Your task to perform on an android device: Open Yahoo.com Image 0: 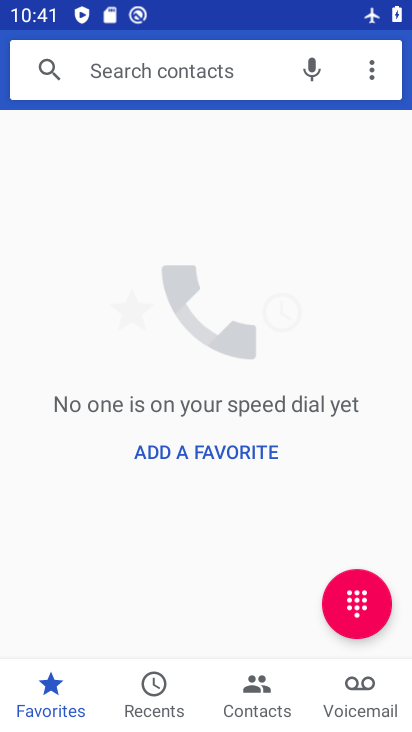
Step 0: press home button
Your task to perform on an android device: Open Yahoo.com Image 1: 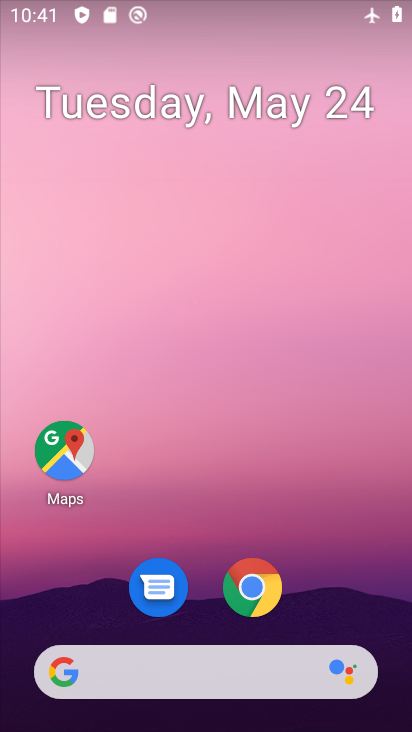
Step 1: click (257, 581)
Your task to perform on an android device: Open Yahoo.com Image 2: 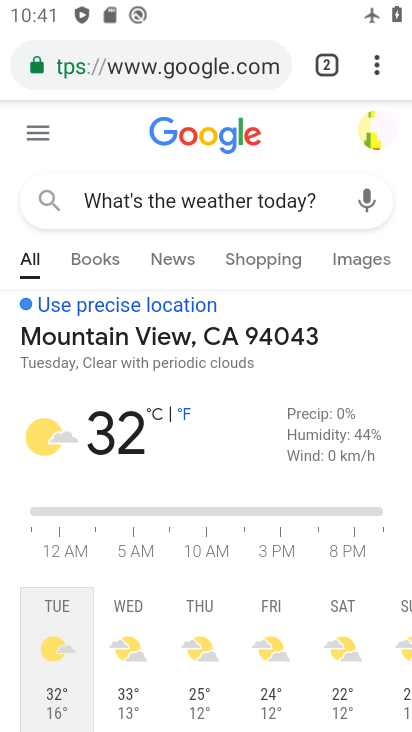
Step 2: drag from (268, 0) to (388, 731)
Your task to perform on an android device: Open Yahoo.com Image 3: 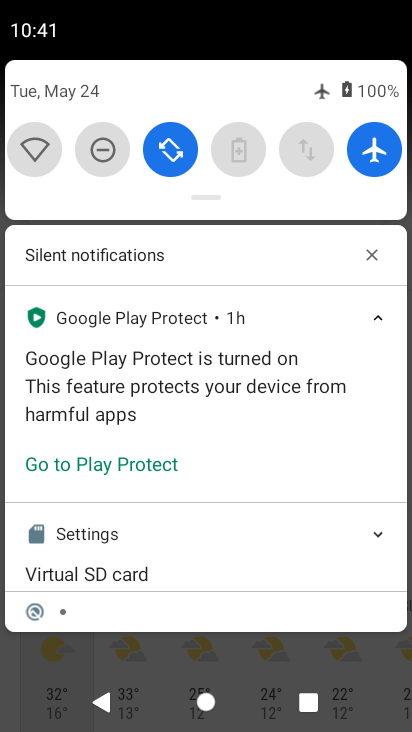
Step 3: click (381, 165)
Your task to perform on an android device: Open Yahoo.com Image 4: 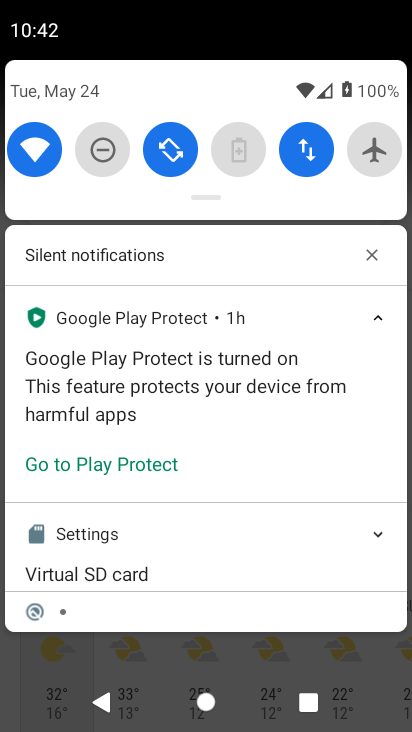
Step 4: drag from (74, 643) to (68, 93)
Your task to perform on an android device: Open Yahoo.com Image 5: 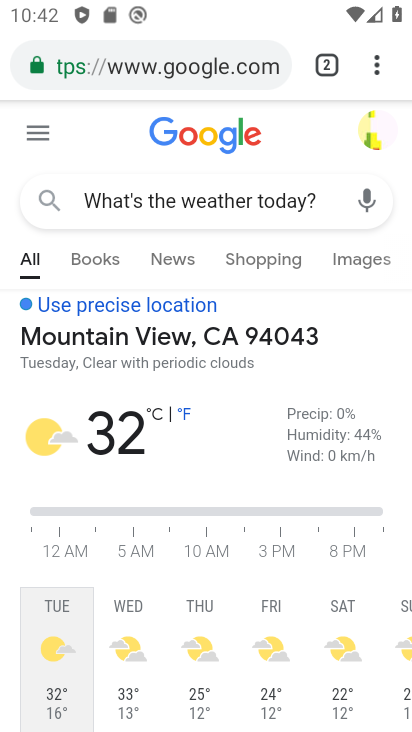
Step 5: click (148, 74)
Your task to perform on an android device: Open Yahoo.com Image 6: 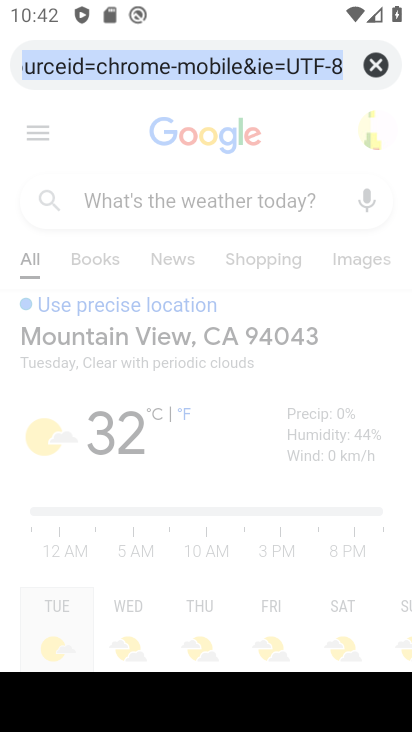
Step 6: click (371, 69)
Your task to perform on an android device: Open Yahoo.com Image 7: 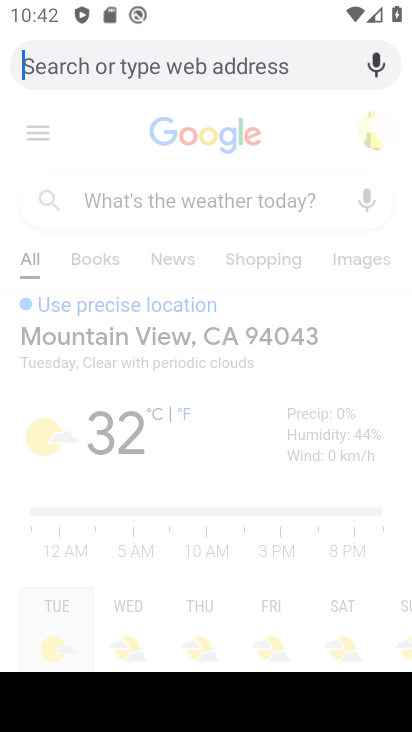
Step 7: click (240, 65)
Your task to perform on an android device: Open Yahoo.com Image 8: 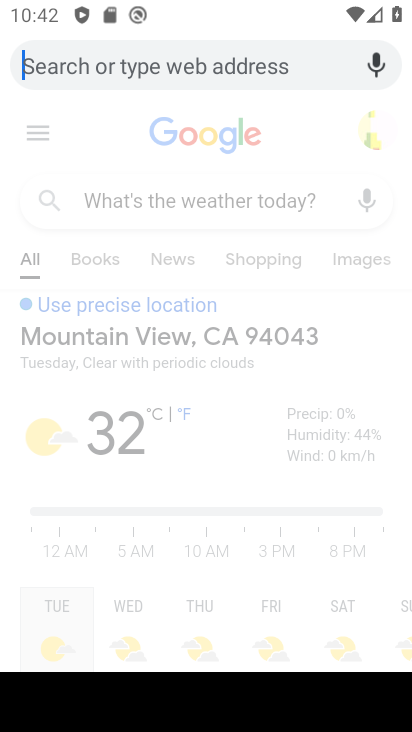
Step 8: type "Yahoo.com"
Your task to perform on an android device: Open Yahoo.com Image 9: 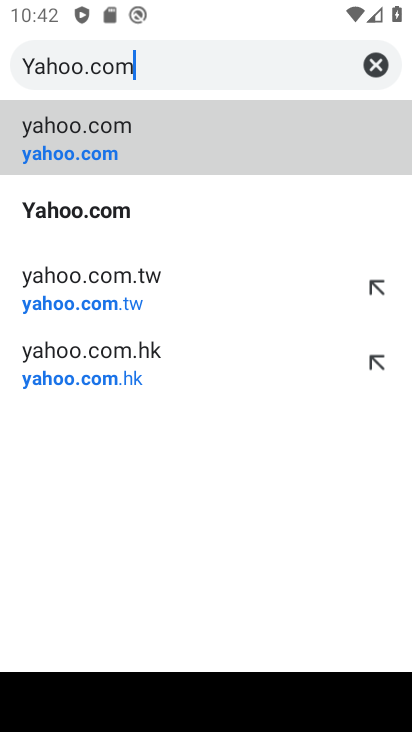
Step 9: click (215, 105)
Your task to perform on an android device: Open Yahoo.com Image 10: 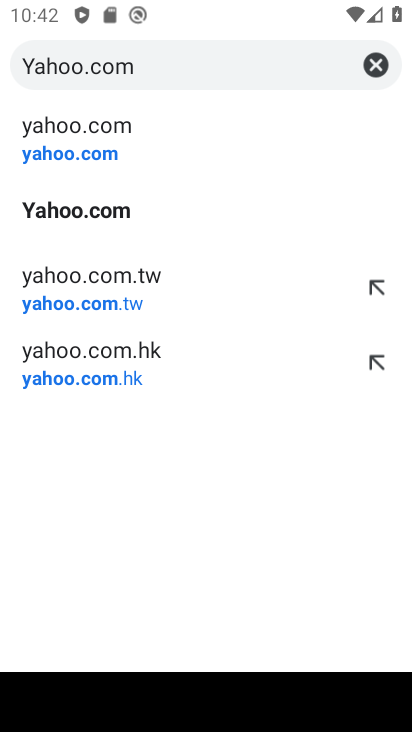
Step 10: click (262, 147)
Your task to perform on an android device: Open Yahoo.com Image 11: 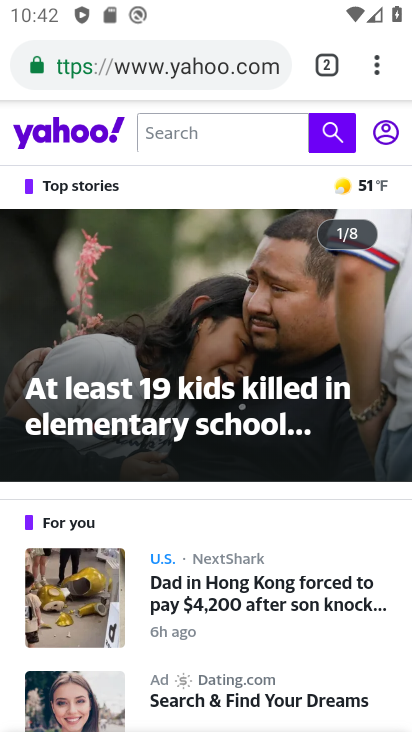
Step 11: task complete